Your task to perform on an android device: Open Youtube and go to the subscriptions tab Image 0: 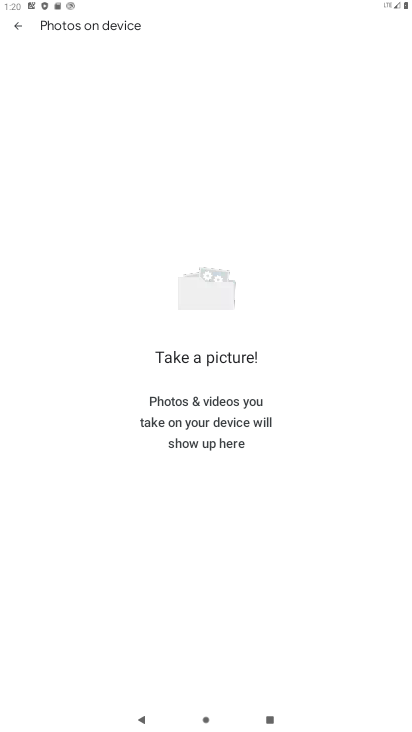
Step 0: press home button
Your task to perform on an android device: Open Youtube and go to the subscriptions tab Image 1: 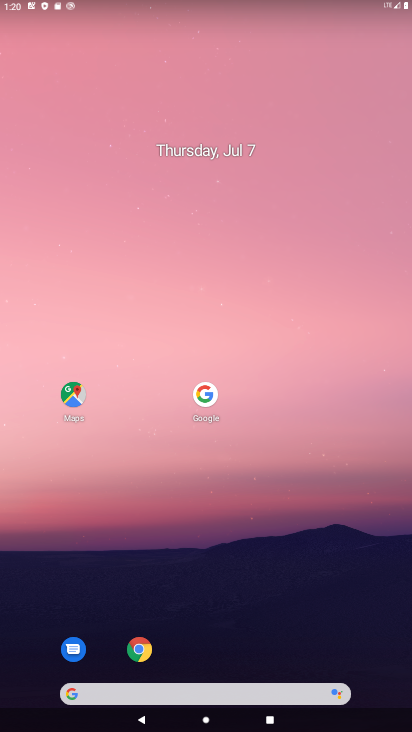
Step 1: press home button
Your task to perform on an android device: Open Youtube and go to the subscriptions tab Image 2: 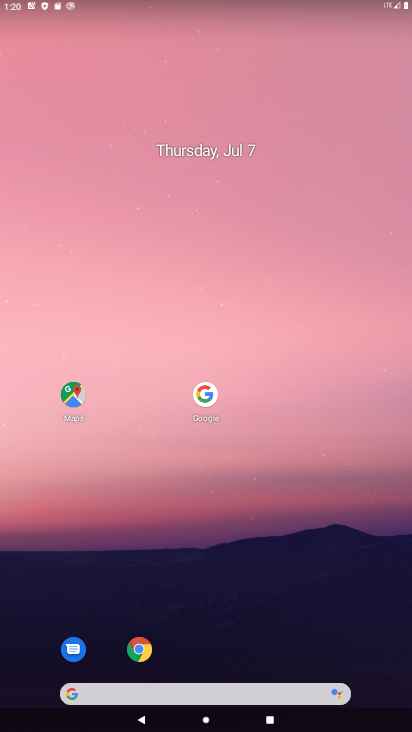
Step 2: drag from (381, 501) to (393, 119)
Your task to perform on an android device: Open Youtube and go to the subscriptions tab Image 3: 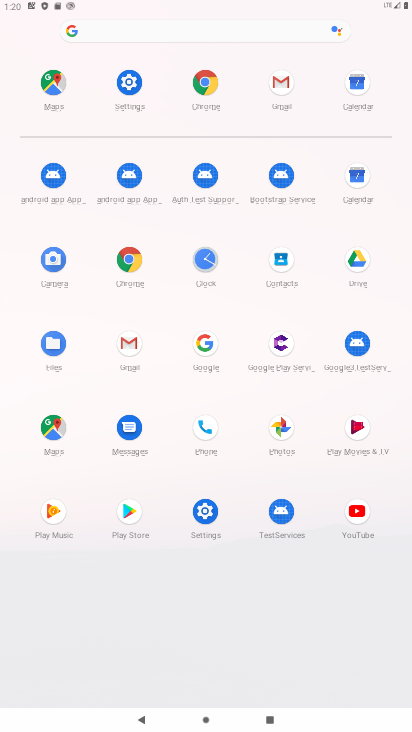
Step 3: click (349, 516)
Your task to perform on an android device: Open Youtube and go to the subscriptions tab Image 4: 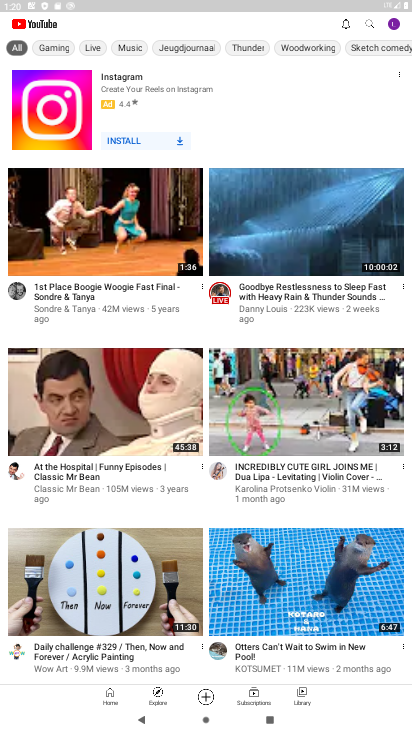
Step 4: click (250, 697)
Your task to perform on an android device: Open Youtube and go to the subscriptions tab Image 5: 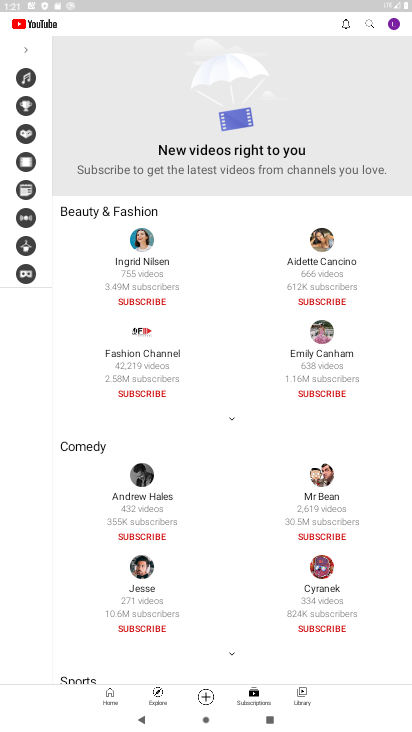
Step 5: task complete